Your task to perform on an android device: toggle data saver in the chrome app Image 0: 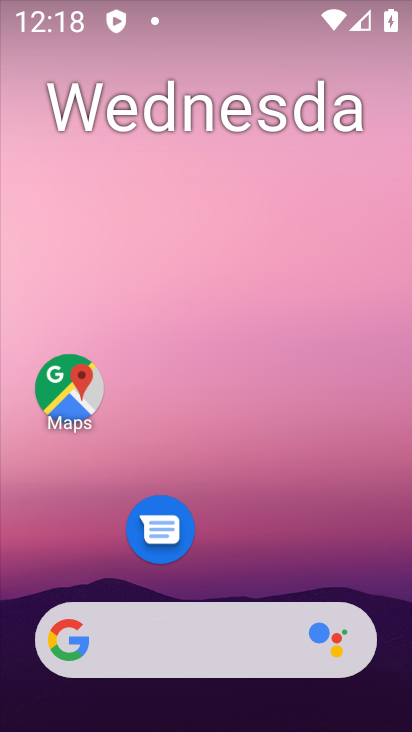
Step 0: drag from (175, 583) to (182, 13)
Your task to perform on an android device: toggle data saver in the chrome app Image 1: 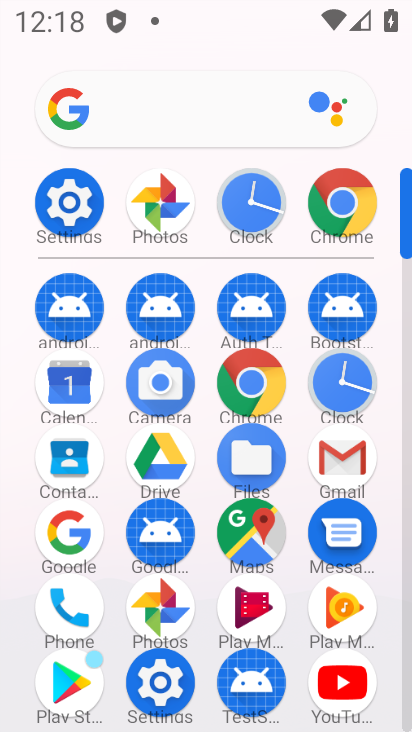
Step 1: click (265, 365)
Your task to perform on an android device: toggle data saver in the chrome app Image 2: 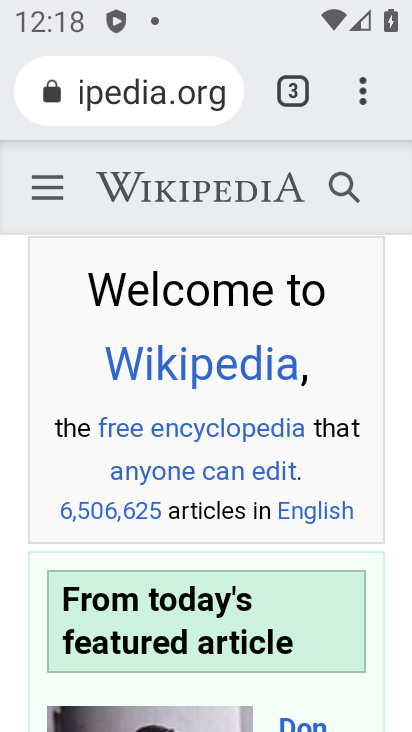
Step 2: click (353, 105)
Your task to perform on an android device: toggle data saver in the chrome app Image 3: 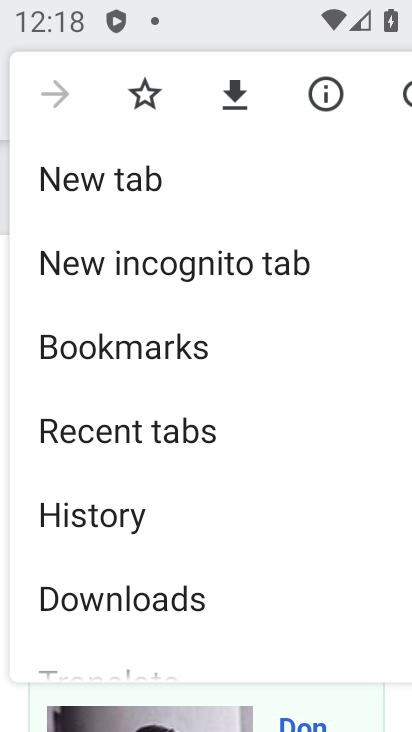
Step 3: drag from (286, 565) to (224, 10)
Your task to perform on an android device: toggle data saver in the chrome app Image 4: 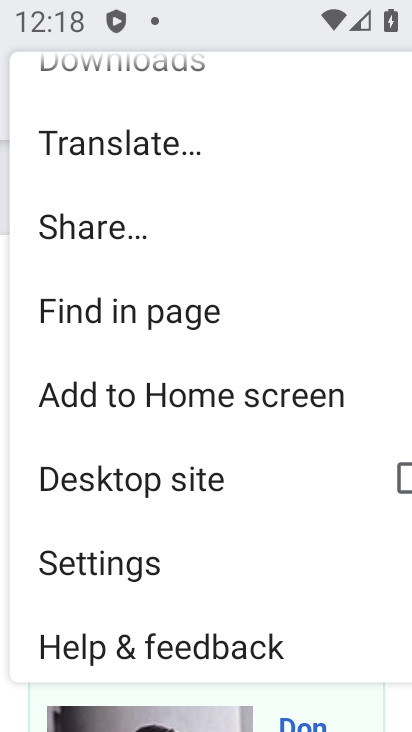
Step 4: click (112, 584)
Your task to perform on an android device: toggle data saver in the chrome app Image 5: 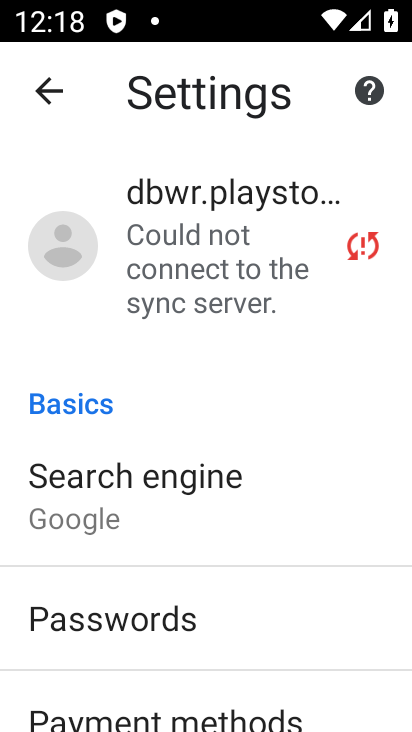
Step 5: drag from (199, 675) to (199, 130)
Your task to perform on an android device: toggle data saver in the chrome app Image 6: 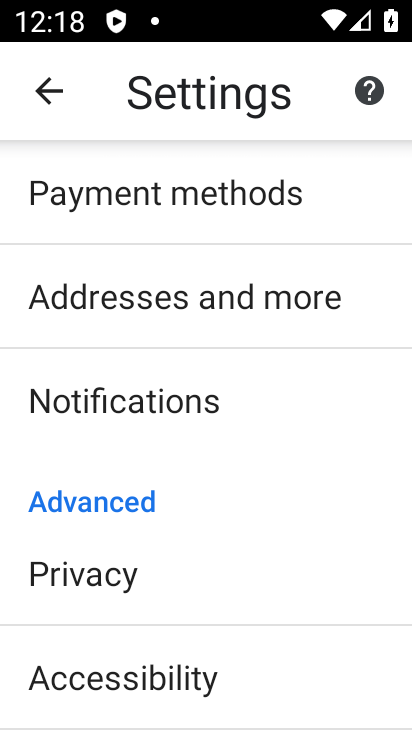
Step 6: drag from (245, 612) to (177, 25)
Your task to perform on an android device: toggle data saver in the chrome app Image 7: 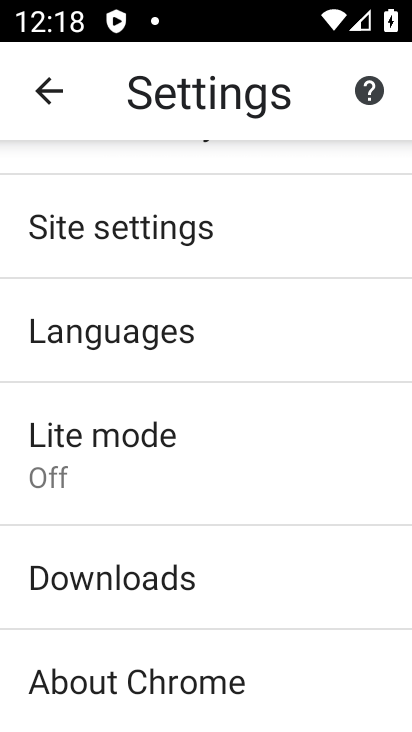
Step 7: click (117, 455)
Your task to perform on an android device: toggle data saver in the chrome app Image 8: 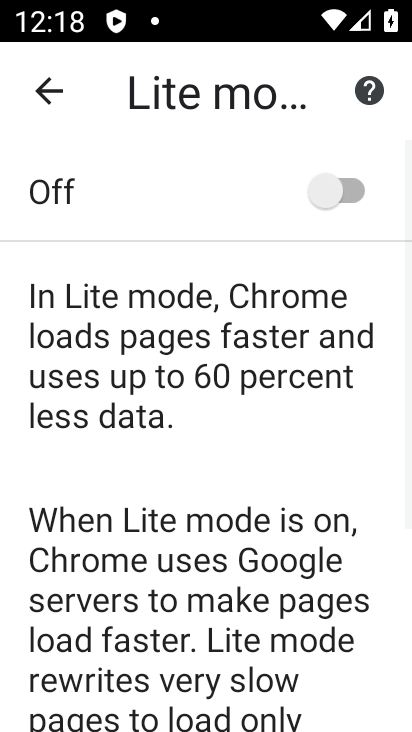
Step 8: click (325, 188)
Your task to perform on an android device: toggle data saver in the chrome app Image 9: 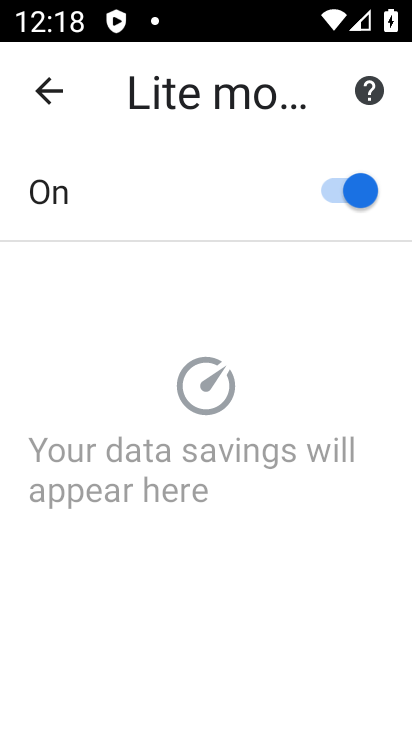
Step 9: task complete